Your task to perform on an android device: Open Maps and search for coffee Image 0: 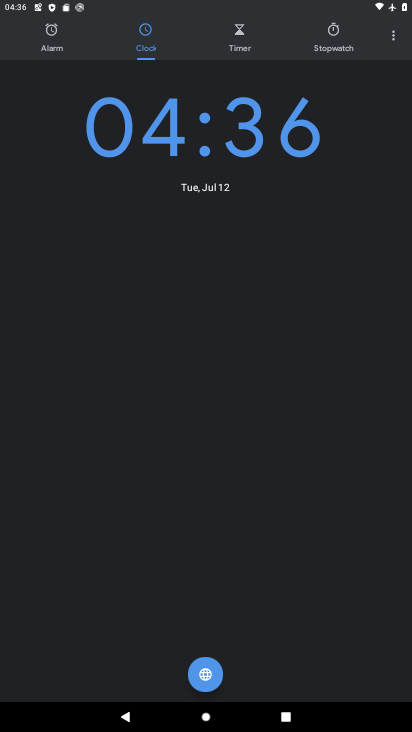
Step 0: press home button
Your task to perform on an android device: Open Maps and search for coffee Image 1: 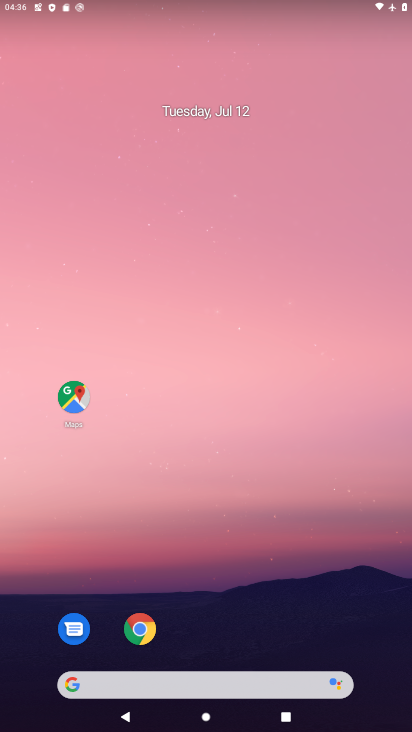
Step 1: drag from (340, 600) to (268, 34)
Your task to perform on an android device: Open Maps and search for coffee Image 2: 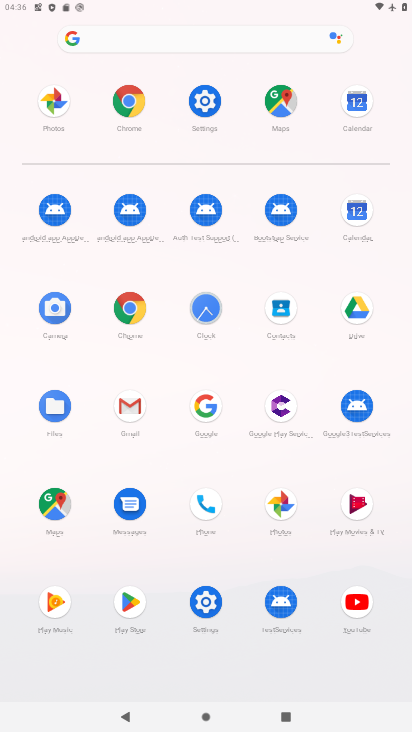
Step 2: click (284, 100)
Your task to perform on an android device: Open Maps and search for coffee Image 3: 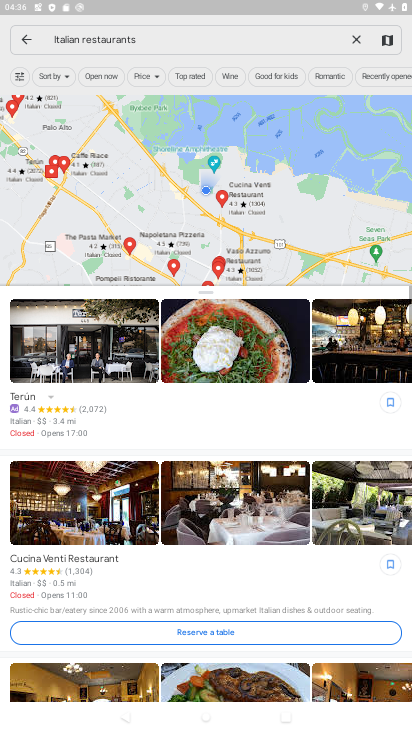
Step 3: click (260, 42)
Your task to perform on an android device: Open Maps and search for coffee Image 4: 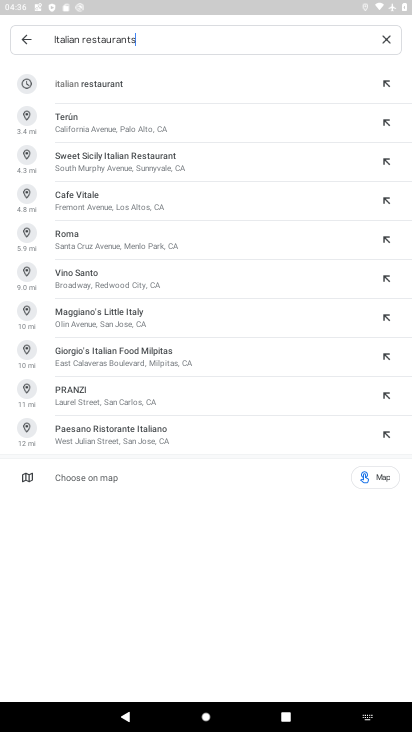
Step 4: click (386, 41)
Your task to perform on an android device: Open Maps and search for coffee Image 5: 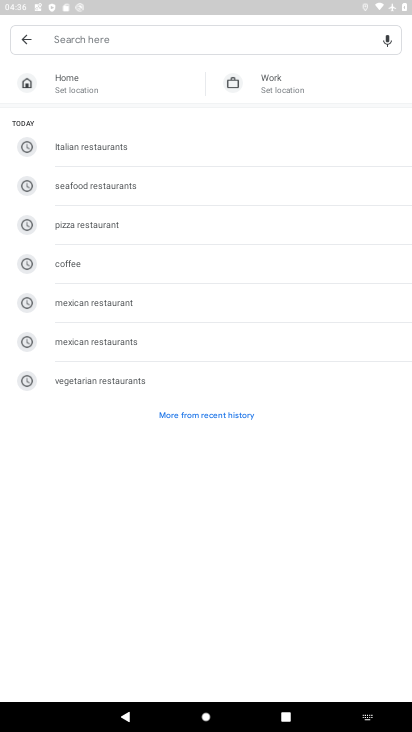
Step 5: click (73, 266)
Your task to perform on an android device: Open Maps and search for coffee Image 6: 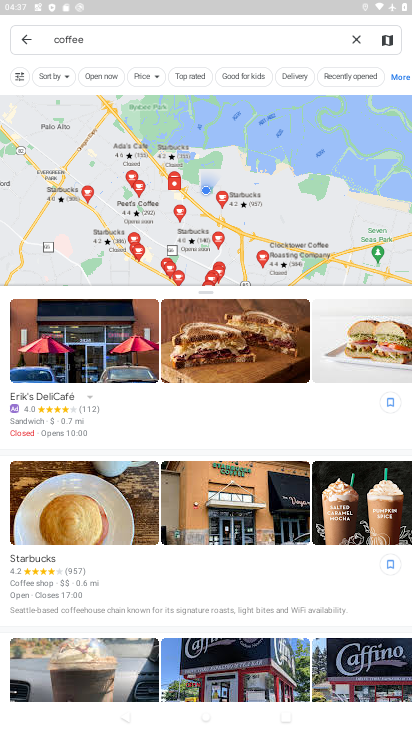
Step 6: task complete